Your task to perform on an android device: Add lg ultragear to the cart on walmart Image 0: 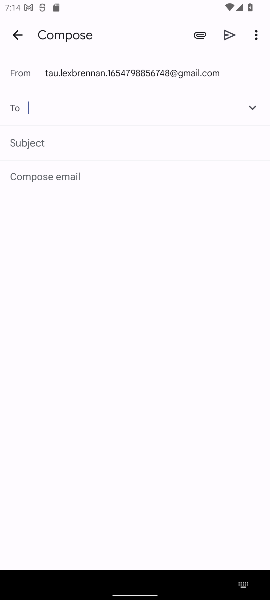
Step 0: press home button
Your task to perform on an android device: Add lg ultragear to the cart on walmart Image 1: 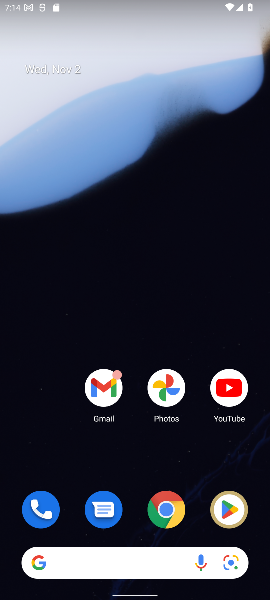
Step 1: click (127, 561)
Your task to perform on an android device: Add lg ultragear to the cart on walmart Image 2: 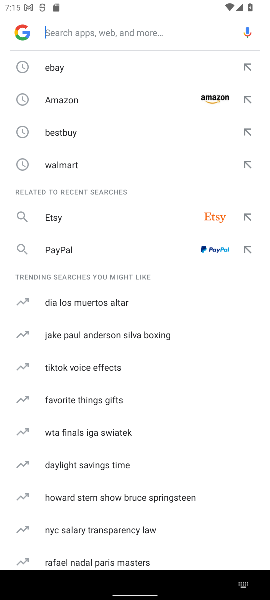
Step 2: click (58, 165)
Your task to perform on an android device: Add lg ultragear to the cart on walmart Image 3: 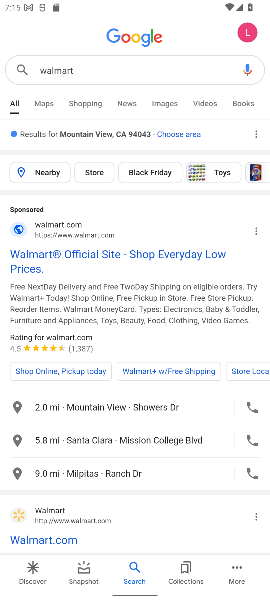
Step 3: click (52, 537)
Your task to perform on an android device: Add lg ultragear to the cart on walmart Image 4: 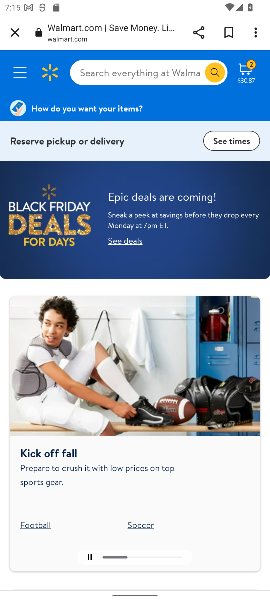
Step 4: click (139, 73)
Your task to perform on an android device: Add lg ultragear to the cart on walmart Image 5: 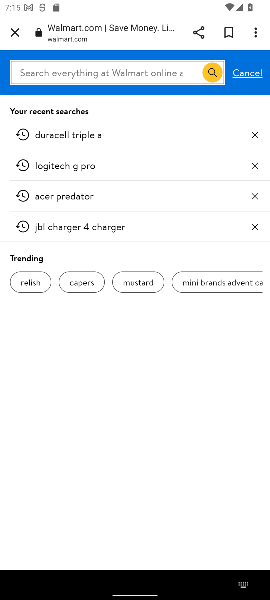
Step 5: type "lgultragear"
Your task to perform on an android device: Add lg ultragear to the cart on walmart Image 6: 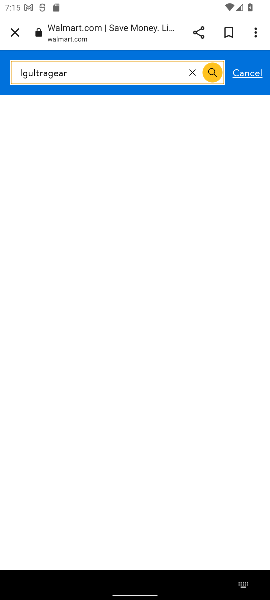
Step 6: click (211, 73)
Your task to perform on an android device: Add lg ultragear to the cart on walmart Image 7: 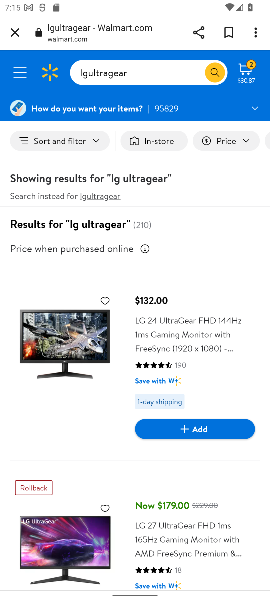
Step 7: click (194, 429)
Your task to perform on an android device: Add lg ultragear to the cart on walmart Image 8: 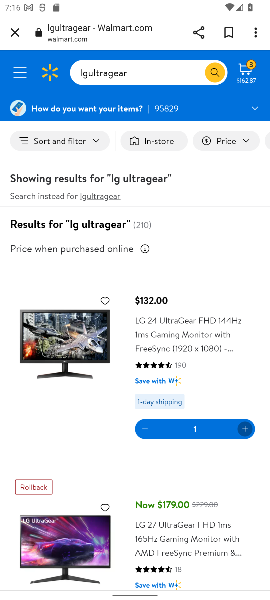
Step 8: task complete